Your task to perform on an android device: Open ESPN.com Image 0: 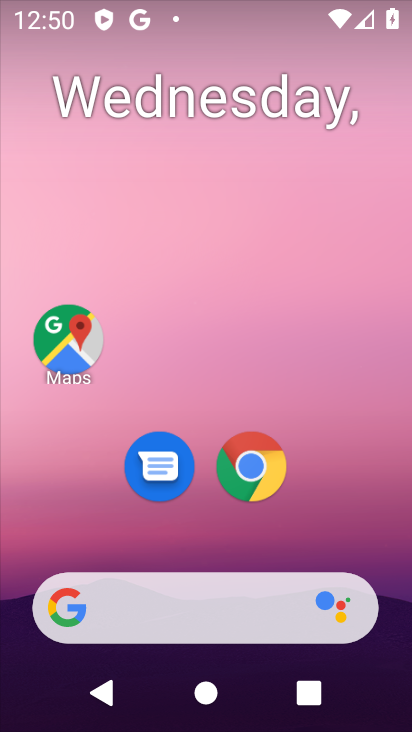
Step 0: click (246, 483)
Your task to perform on an android device: Open ESPN.com Image 1: 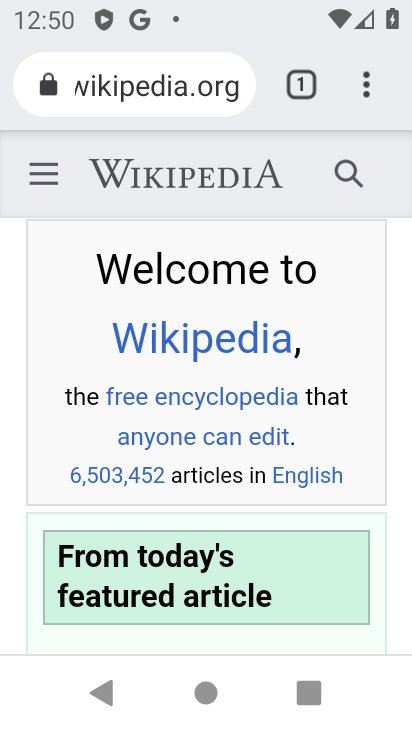
Step 1: click (294, 83)
Your task to perform on an android device: Open ESPN.com Image 2: 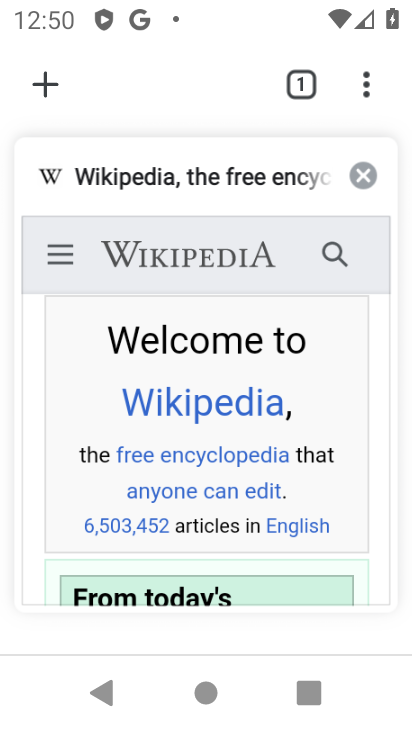
Step 2: click (48, 83)
Your task to perform on an android device: Open ESPN.com Image 3: 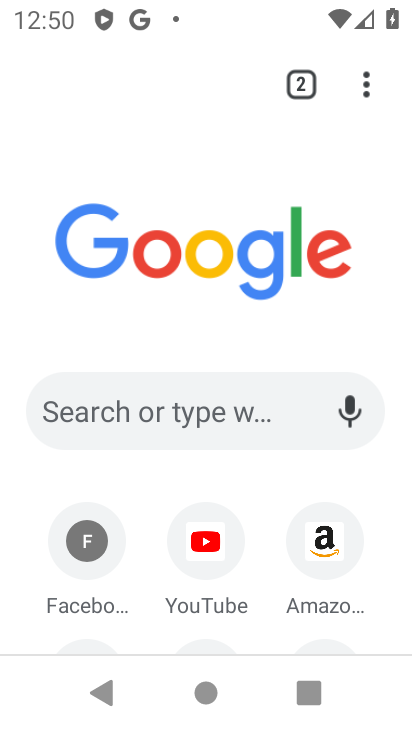
Step 3: drag from (198, 445) to (194, 111)
Your task to perform on an android device: Open ESPN.com Image 4: 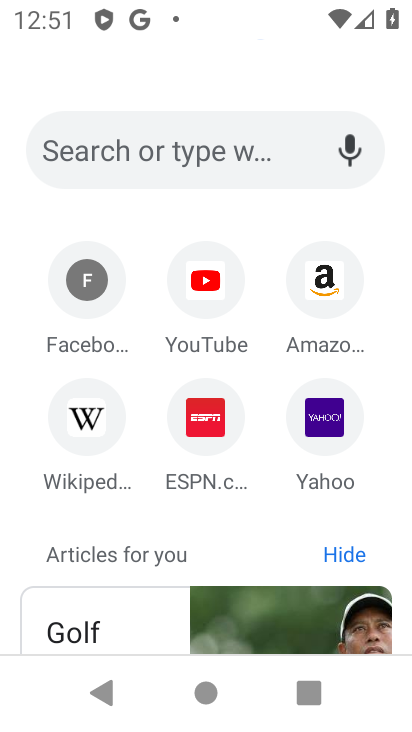
Step 4: click (217, 428)
Your task to perform on an android device: Open ESPN.com Image 5: 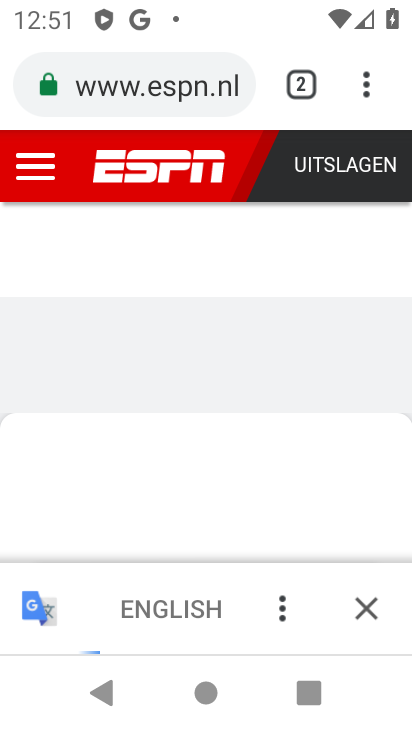
Step 5: task complete